Your task to perform on an android device: Open Google Image 0: 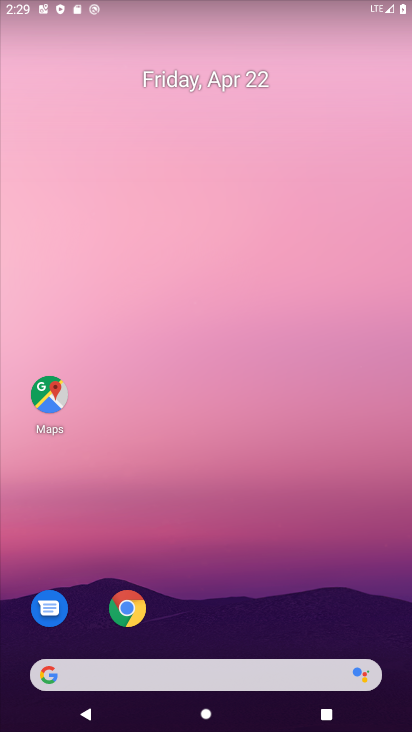
Step 0: drag from (250, 689) to (298, 199)
Your task to perform on an android device: Open Google Image 1: 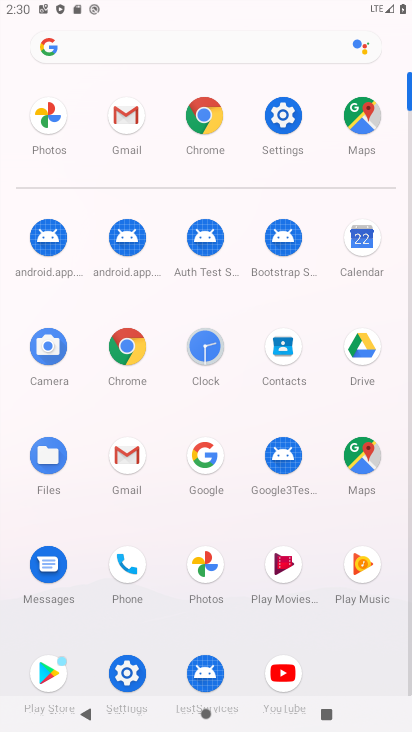
Step 1: click (212, 123)
Your task to perform on an android device: Open Google Image 2: 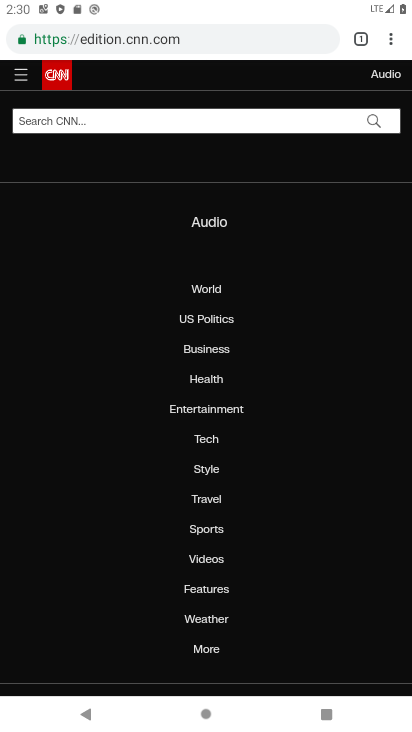
Step 2: click (197, 48)
Your task to perform on an android device: Open Google Image 3: 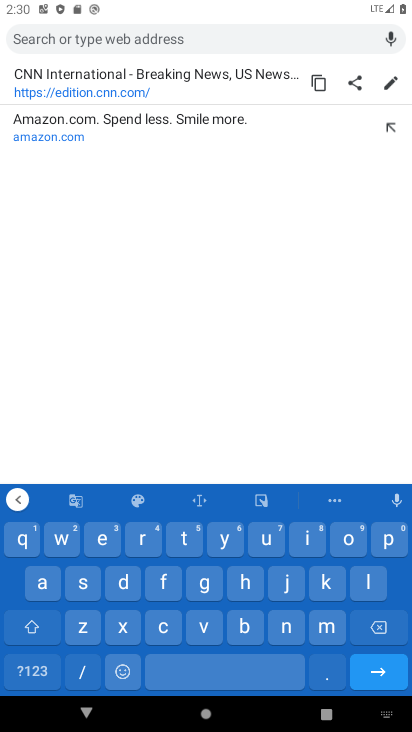
Step 3: click (207, 592)
Your task to perform on an android device: Open Google Image 4: 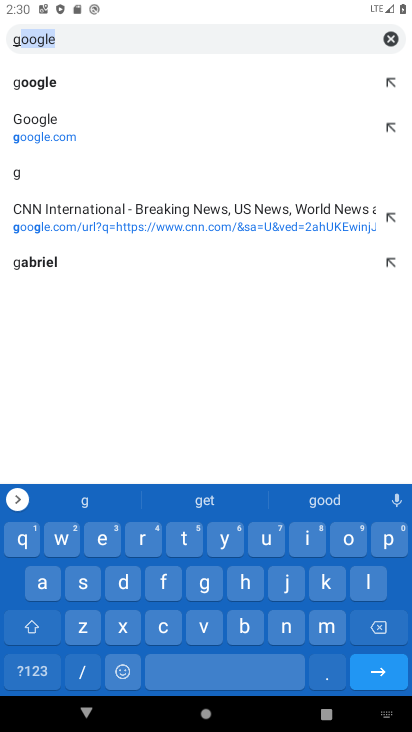
Step 4: click (121, 40)
Your task to perform on an android device: Open Google Image 5: 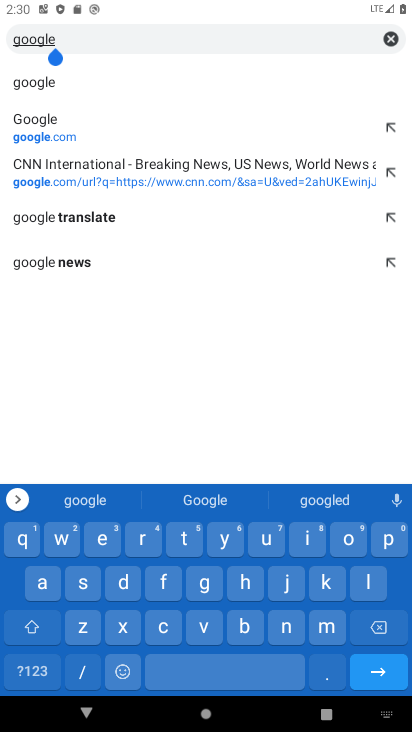
Step 5: click (384, 670)
Your task to perform on an android device: Open Google Image 6: 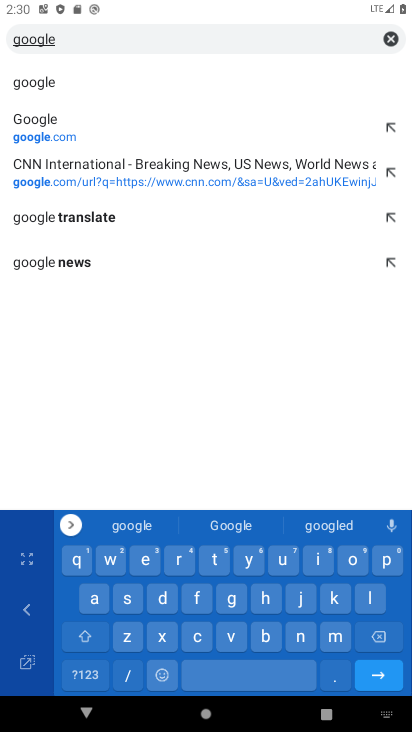
Step 6: click (381, 678)
Your task to perform on an android device: Open Google Image 7: 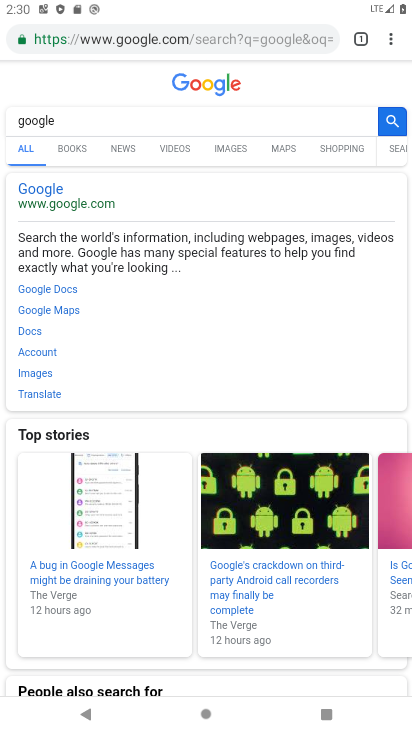
Step 7: click (50, 197)
Your task to perform on an android device: Open Google Image 8: 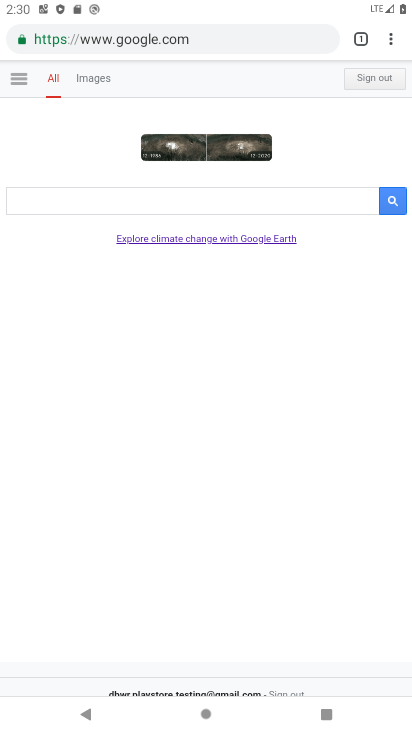
Step 8: task complete